Your task to perform on an android device: open app "ZOOM Cloud Meetings" Image 0: 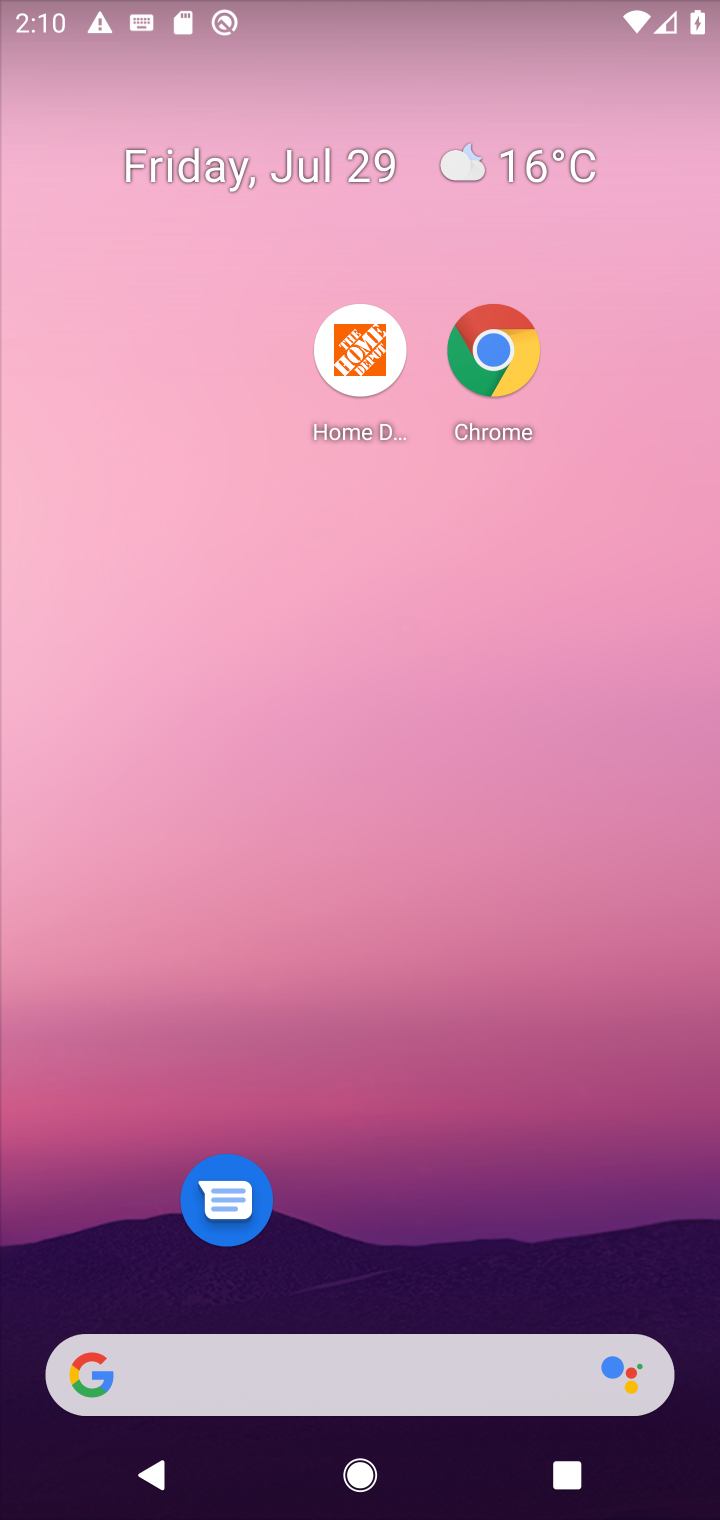
Step 0: press home button
Your task to perform on an android device: open app "ZOOM Cloud Meetings" Image 1: 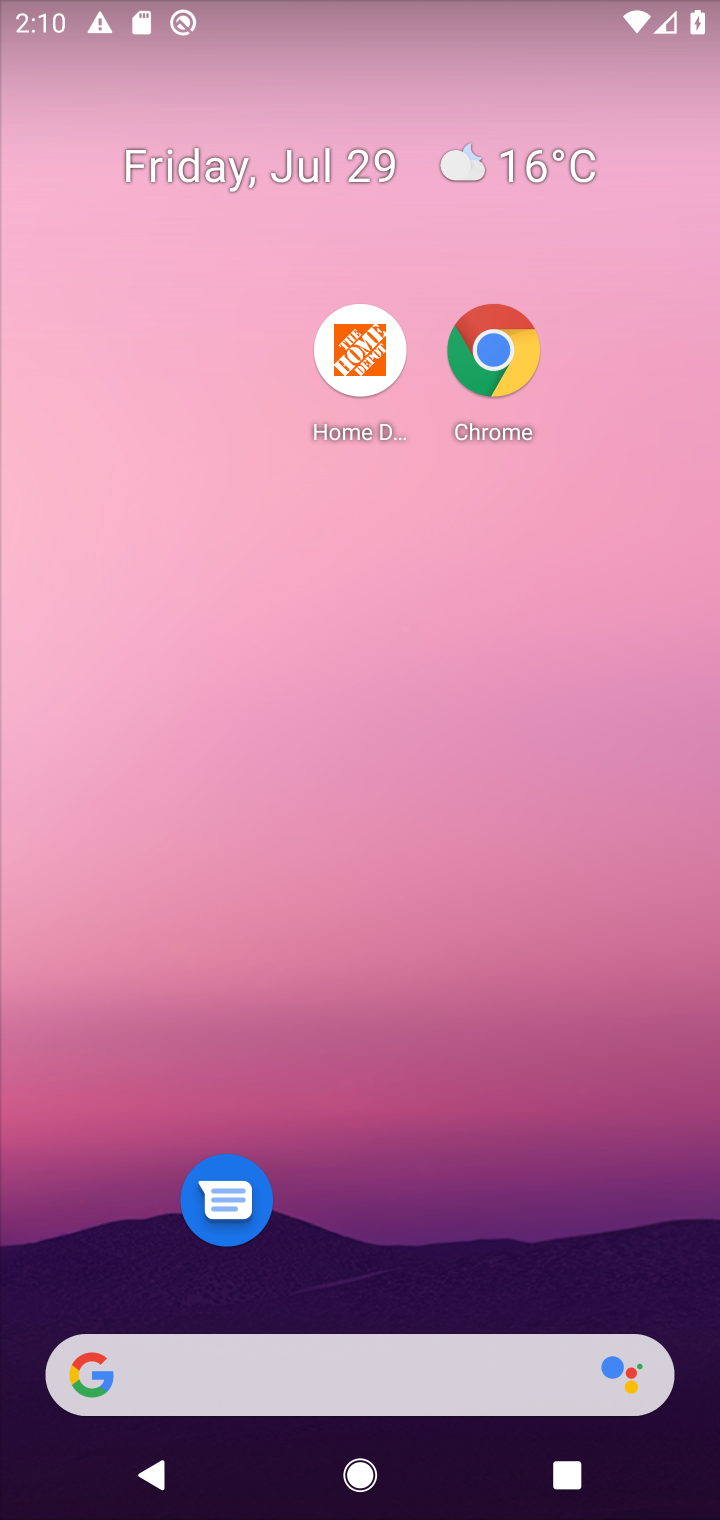
Step 1: drag from (516, 1207) to (528, 182)
Your task to perform on an android device: open app "ZOOM Cloud Meetings" Image 2: 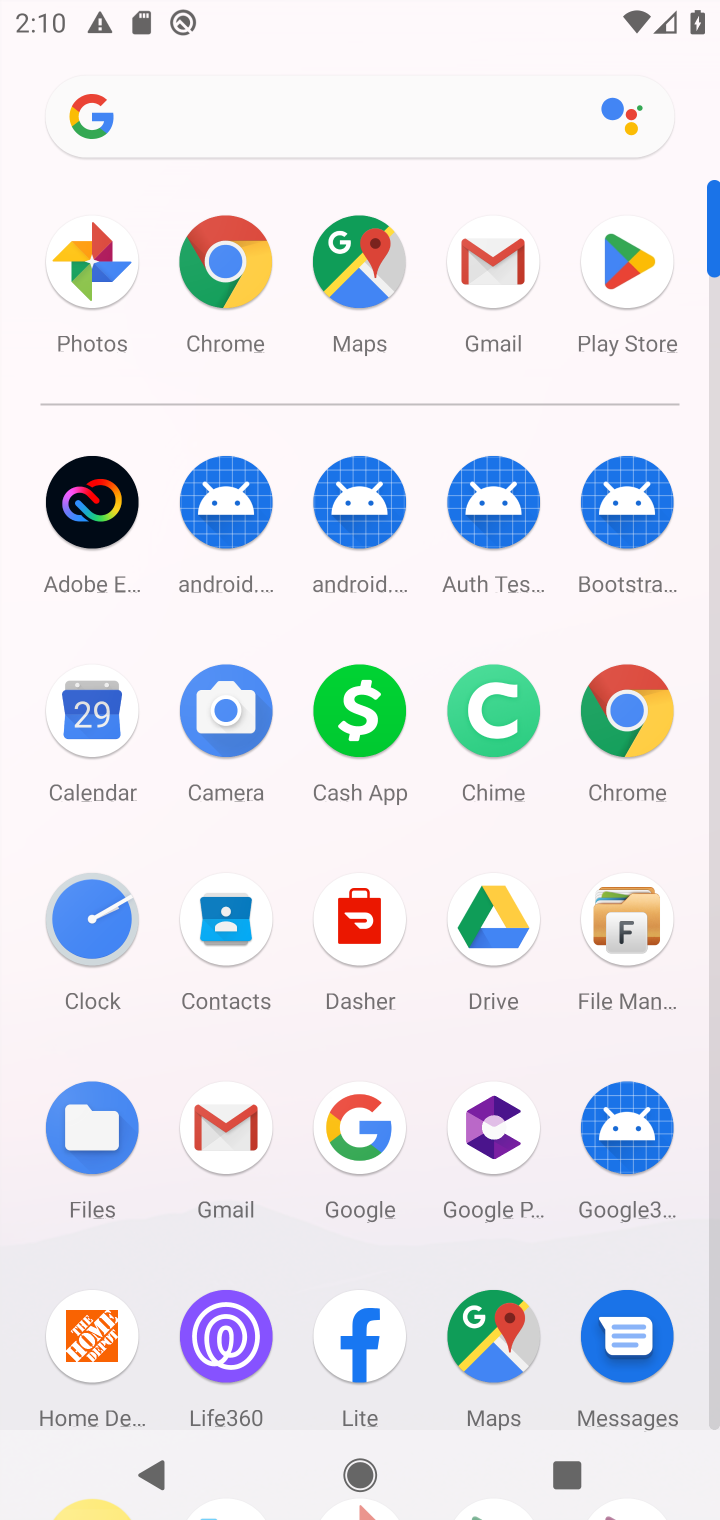
Step 2: click (638, 250)
Your task to perform on an android device: open app "ZOOM Cloud Meetings" Image 3: 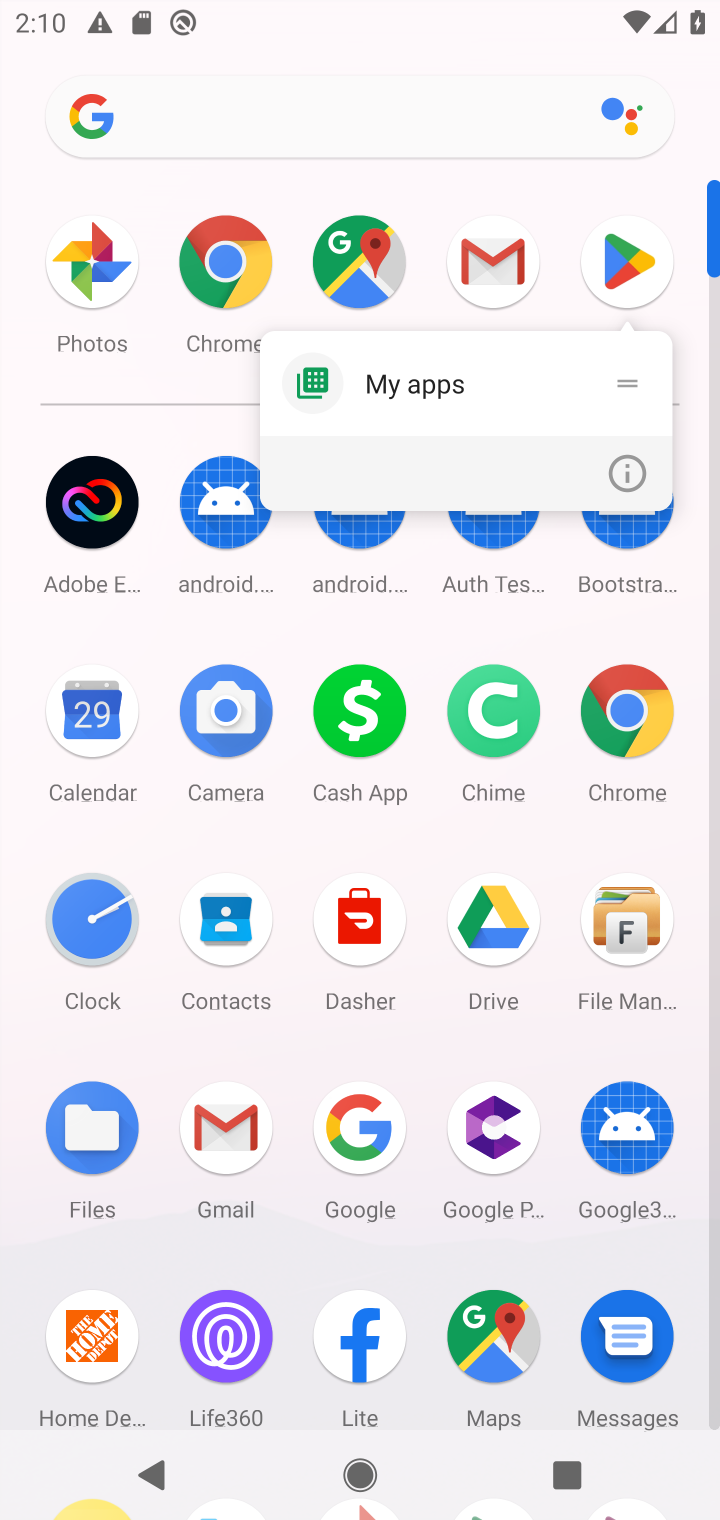
Step 3: click (631, 256)
Your task to perform on an android device: open app "ZOOM Cloud Meetings" Image 4: 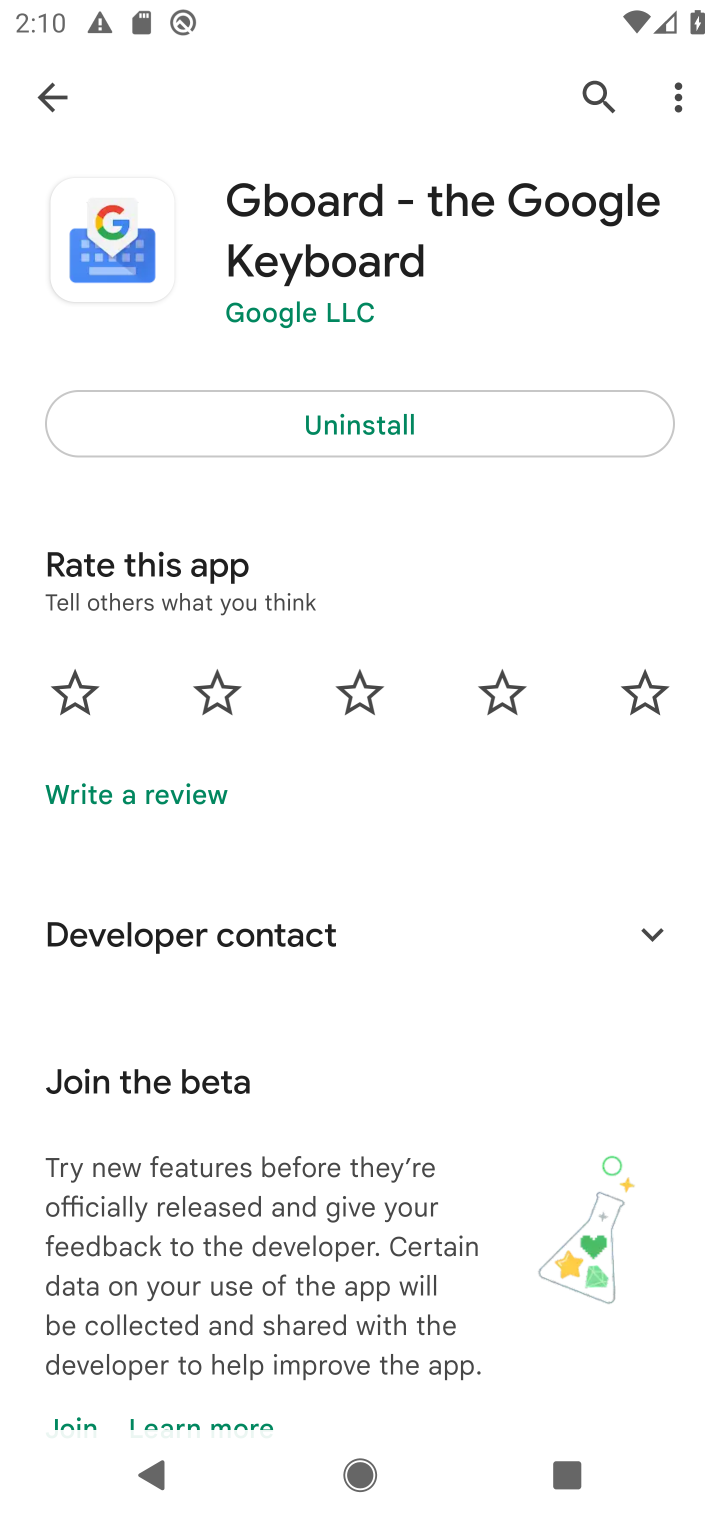
Step 4: click (601, 89)
Your task to perform on an android device: open app "ZOOM Cloud Meetings" Image 5: 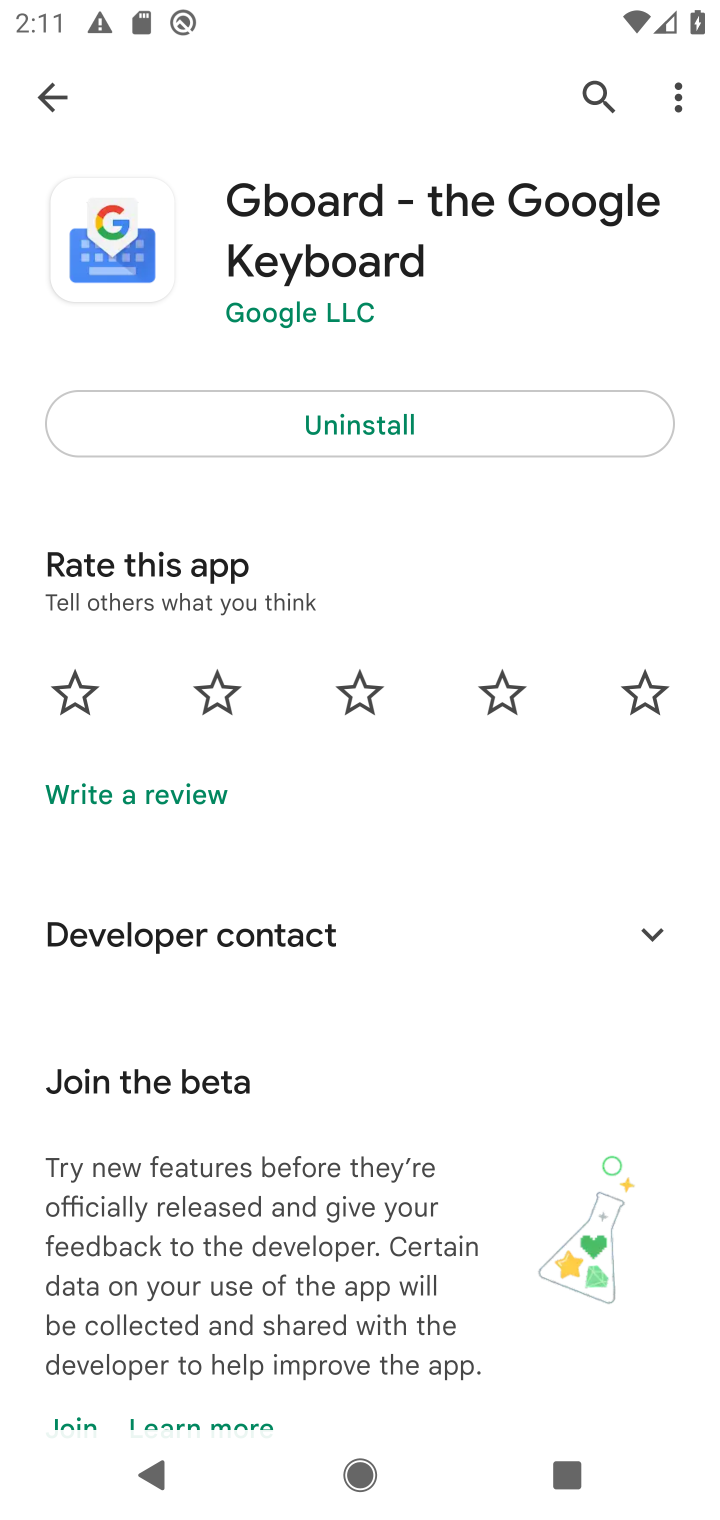
Step 5: click (589, 84)
Your task to perform on an android device: open app "ZOOM Cloud Meetings" Image 6: 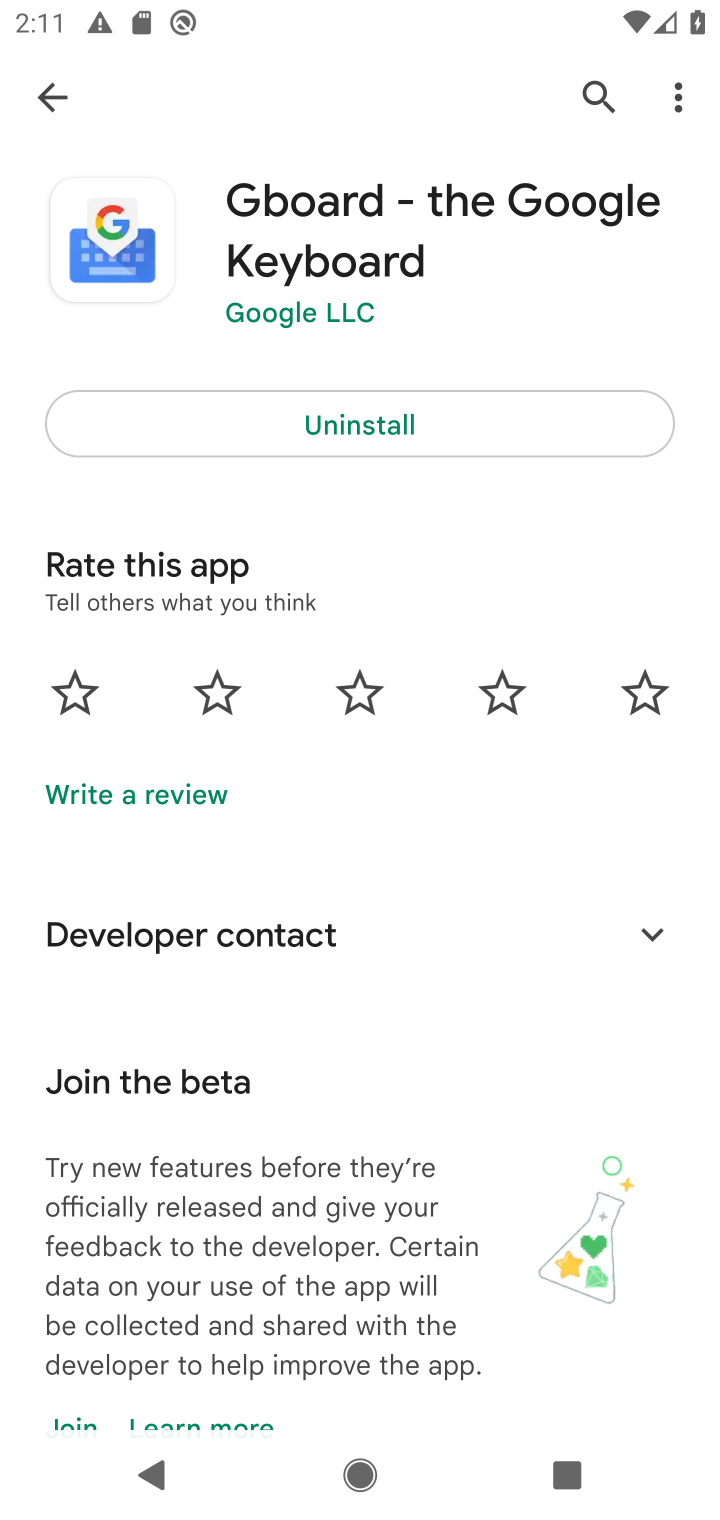
Step 6: press back button
Your task to perform on an android device: open app "ZOOM Cloud Meetings" Image 7: 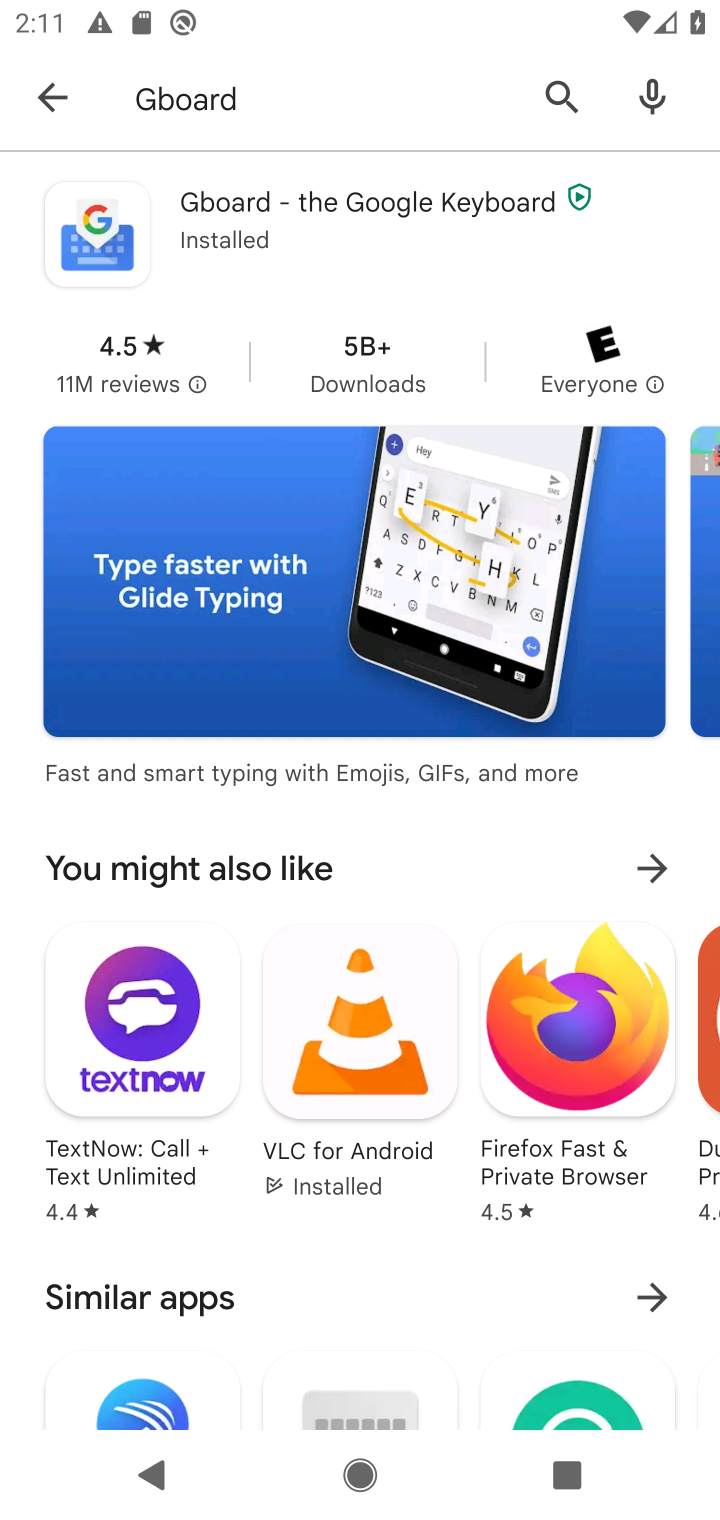
Step 7: click (397, 98)
Your task to perform on an android device: open app "ZOOM Cloud Meetings" Image 8: 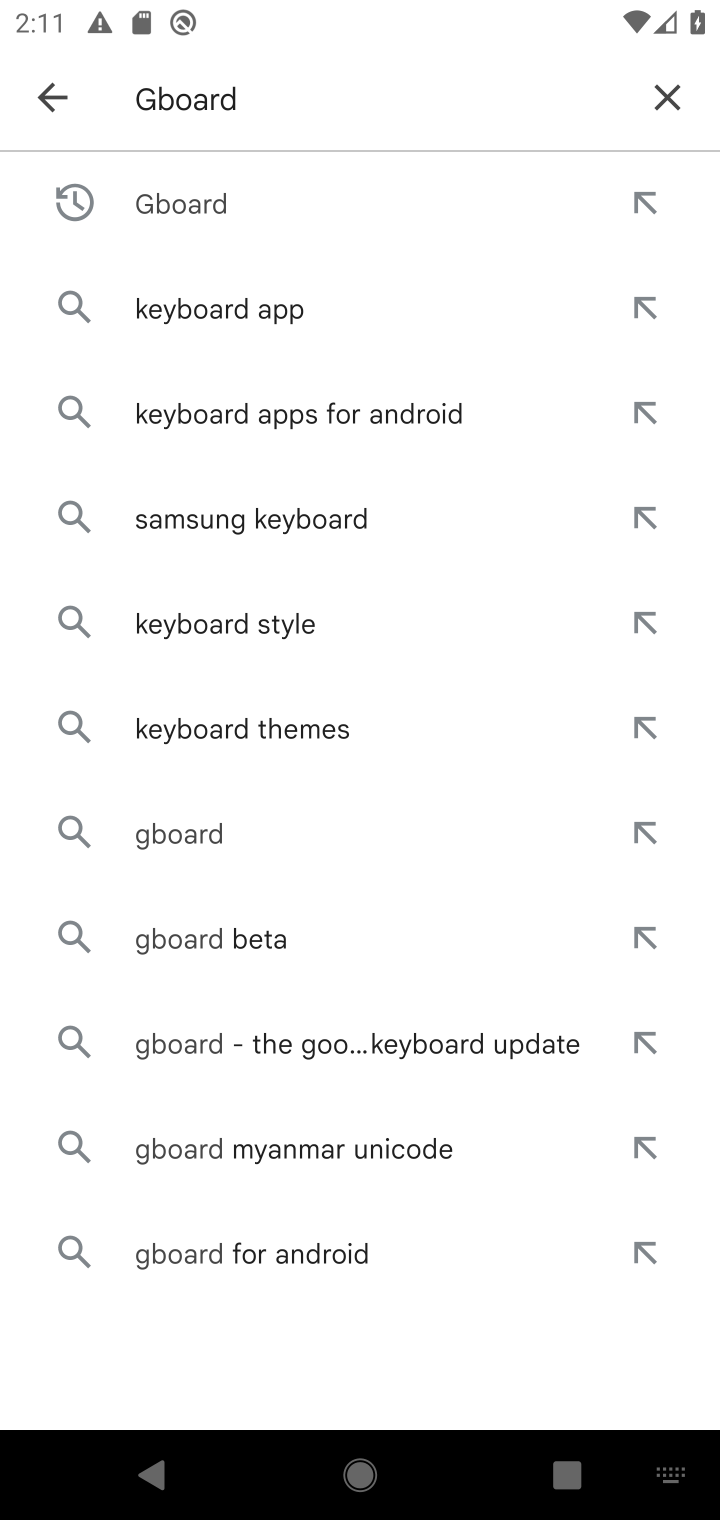
Step 8: click (670, 91)
Your task to perform on an android device: open app "ZOOM Cloud Meetings" Image 9: 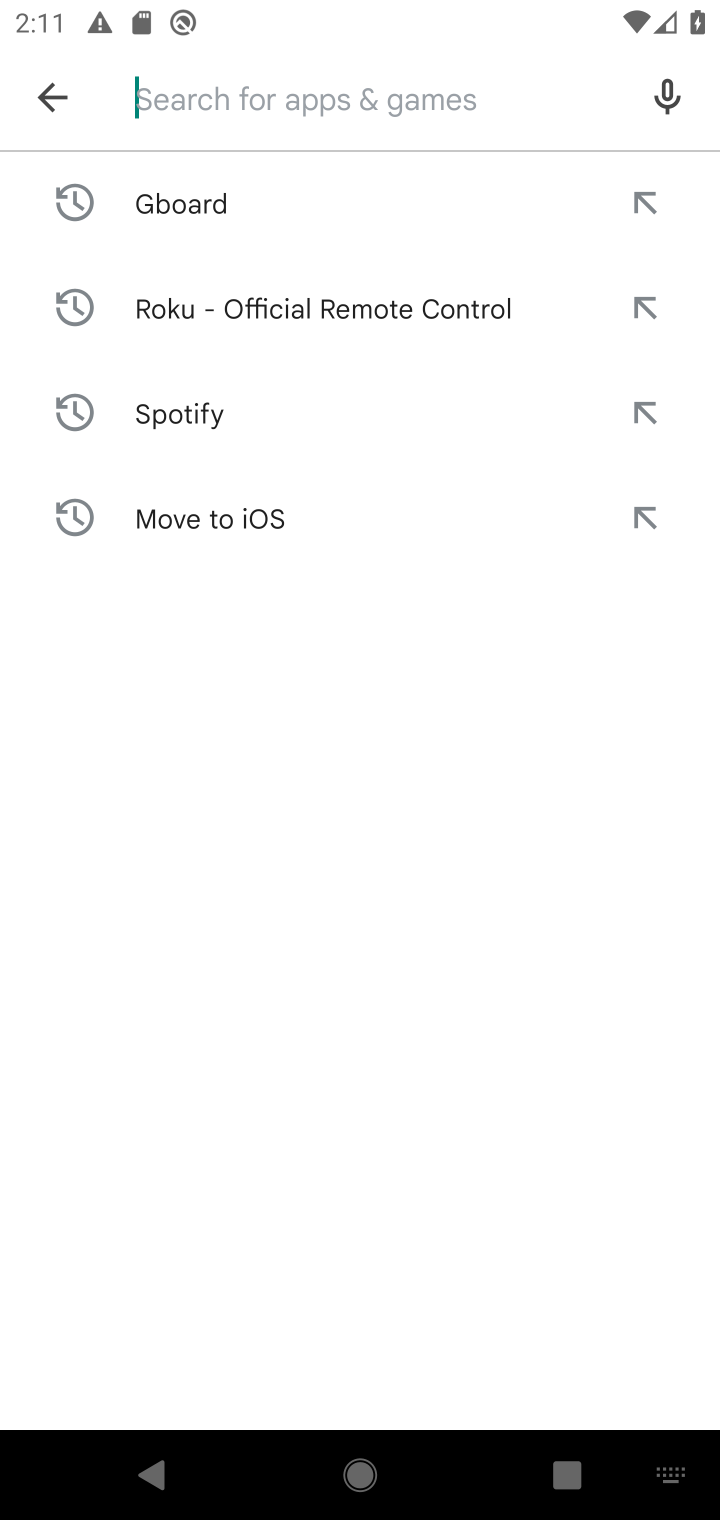
Step 9: type "ZOOM Cloud Meeting"
Your task to perform on an android device: open app "ZOOM Cloud Meetings" Image 10: 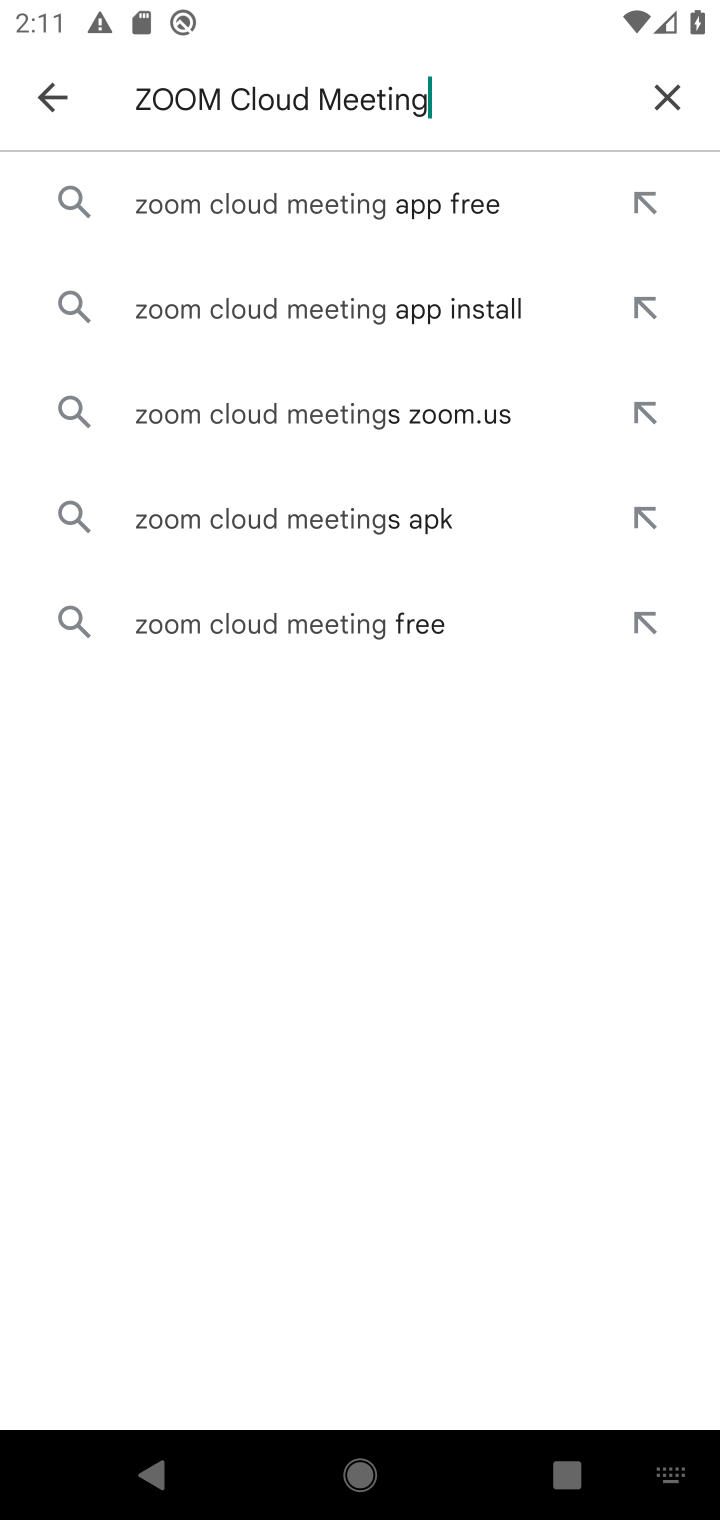
Step 10: press enter
Your task to perform on an android device: open app "ZOOM Cloud Meetings" Image 11: 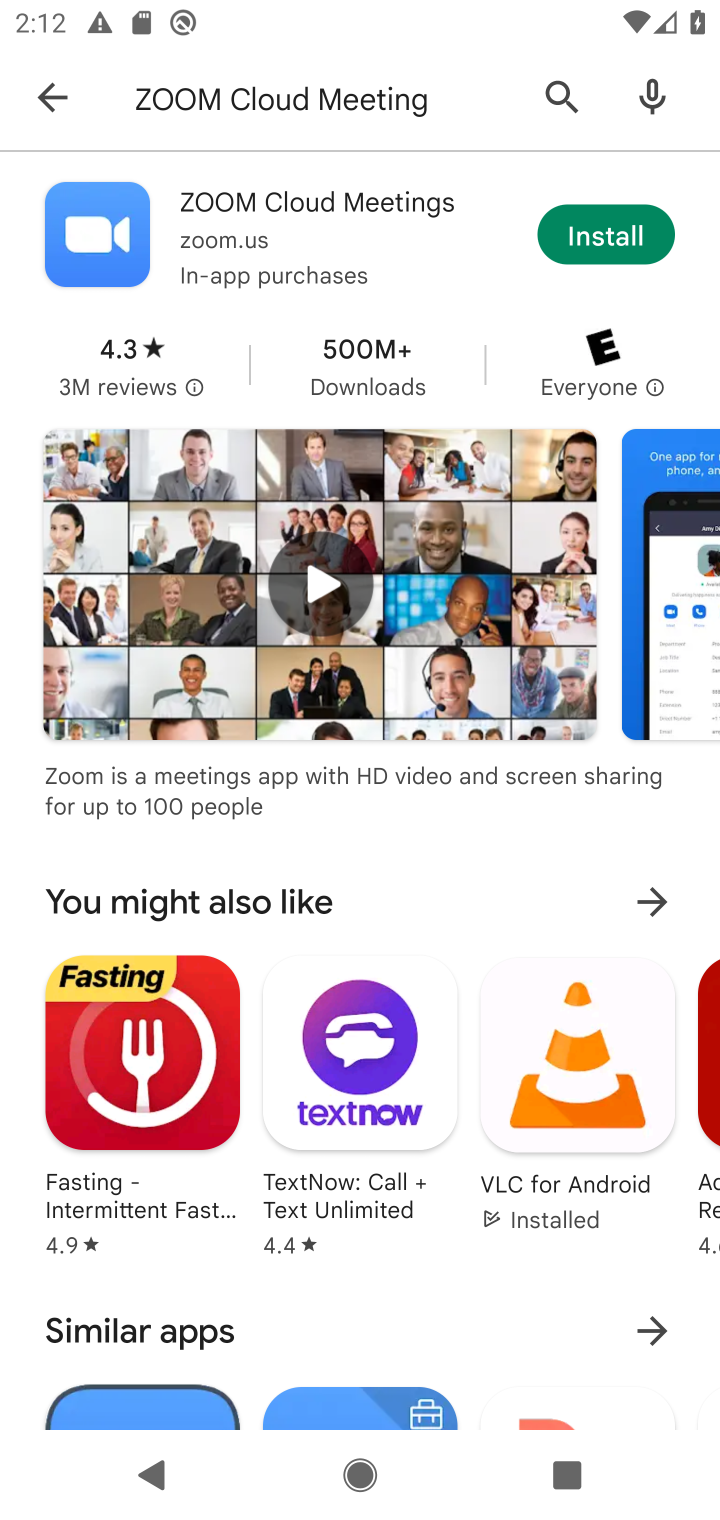
Step 11: task complete